Your task to perform on an android device: Search for "corsair k70" on costco.com, select the first entry, and add it to the cart. Image 0: 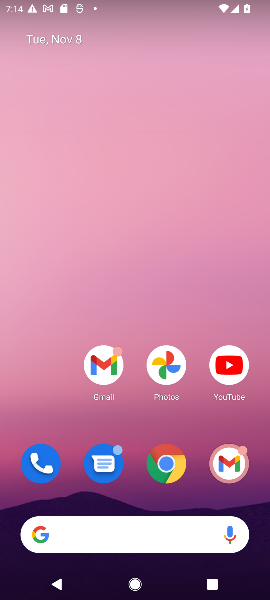
Step 0: click (164, 461)
Your task to perform on an android device: Search for "corsair k70" on costco.com, select the first entry, and add it to the cart. Image 1: 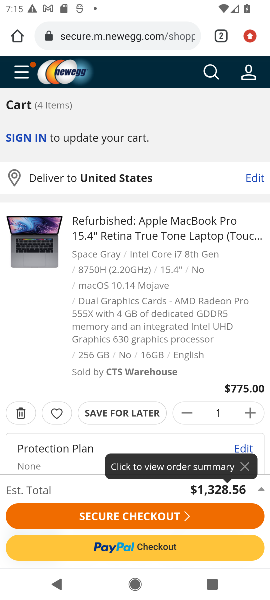
Step 1: click (150, 33)
Your task to perform on an android device: Search for "corsair k70" on costco.com, select the first entry, and add it to the cart. Image 2: 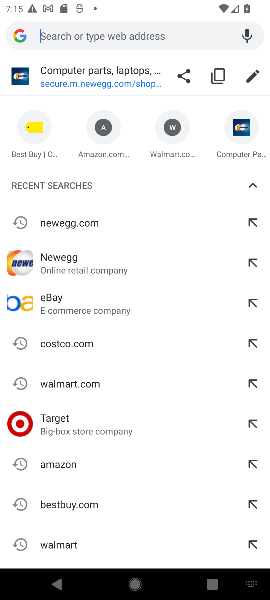
Step 2: click (55, 350)
Your task to perform on an android device: Search for "corsair k70" on costco.com, select the first entry, and add it to the cart. Image 3: 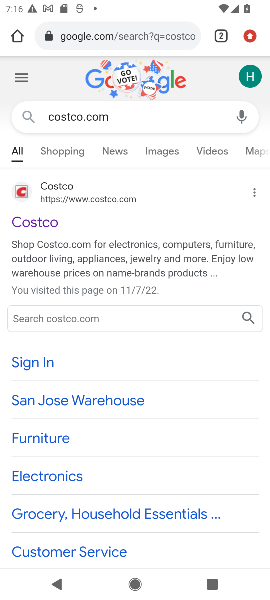
Step 3: click (54, 351)
Your task to perform on an android device: Search for "corsair k70" on costco.com, select the first entry, and add it to the cart. Image 4: 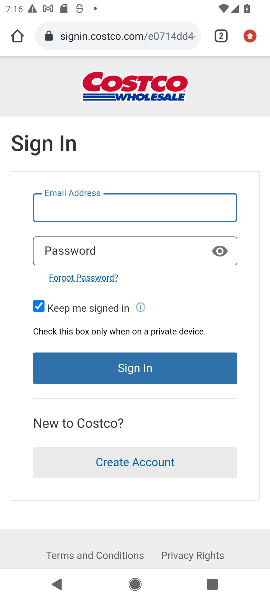
Step 4: click (9, 32)
Your task to perform on an android device: Search for "corsair k70" on costco.com, select the first entry, and add it to the cart. Image 5: 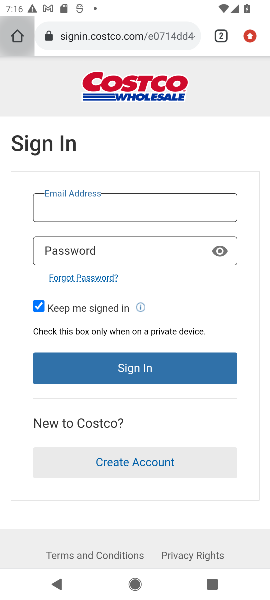
Step 5: click (109, 30)
Your task to perform on an android device: Search for "corsair k70" on costco.com, select the first entry, and add it to the cart. Image 6: 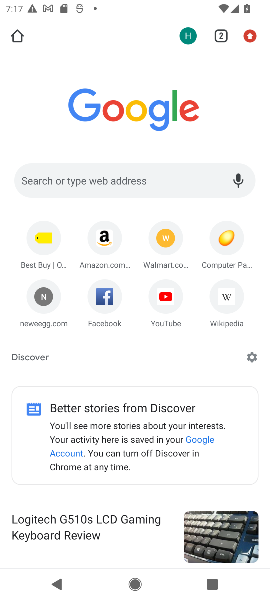
Step 6: click (130, 186)
Your task to perform on an android device: Search for "corsair k70" on costco.com, select the first entry, and add it to the cart. Image 7: 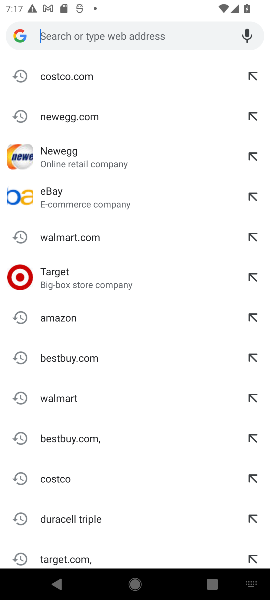
Step 7: click (71, 484)
Your task to perform on an android device: Search for "corsair k70" on costco.com, select the first entry, and add it to the cart. Image 8: 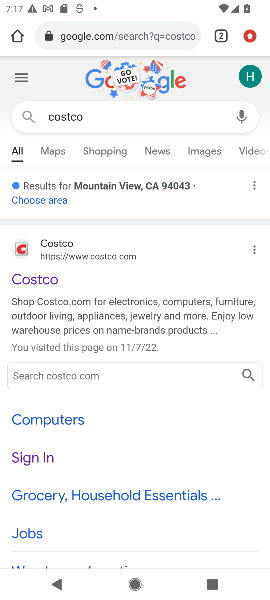
Step 8: click (30, 275)
Your task to perform on an android device: Search for "corsair k70" on costco.com, select the first entry, and add it to the cart. Image 9: 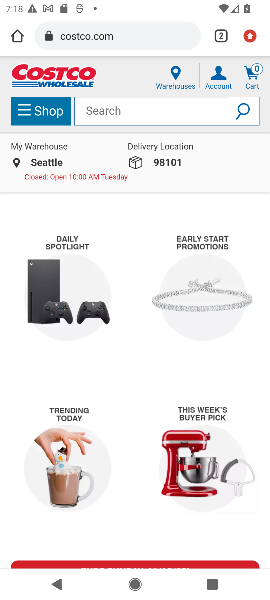
Step 9: click (135, 112)
Your task to perform on an android device: Search for "corsair k70" on costco.com, select the first entry, and add it to the cart. Image 10: 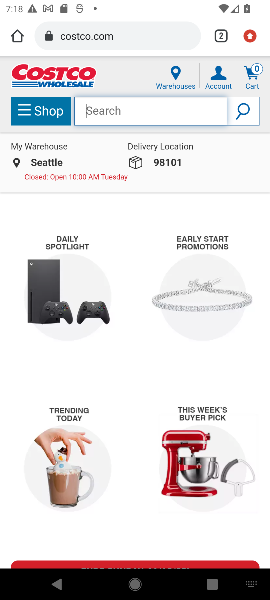
Step 10: type "corsair k70"
Your task to perform on an android device: Search for "corsair k70" on costco.com, select the first entry, and add it to the cart. Image 11: 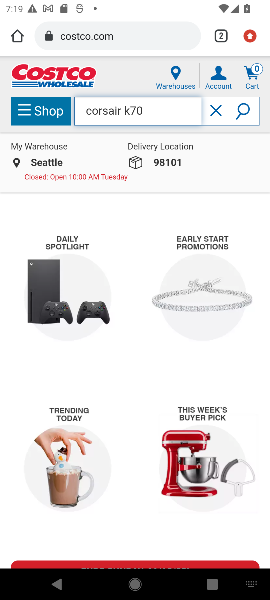
Step 11: click (242, 102)
Your task to perform on an android device: Search for "corsair k70" on costco.com, select the first entry, and add it to the cart. Image 12: 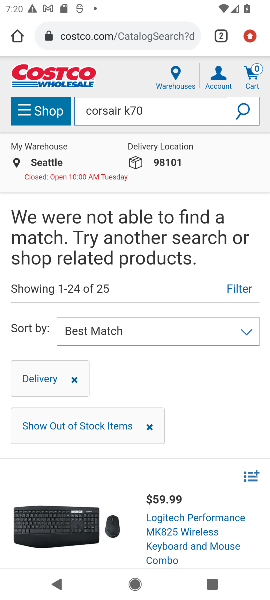
Step 12: task complete